Your task to perform on an android device: Show me recent news Image 0: 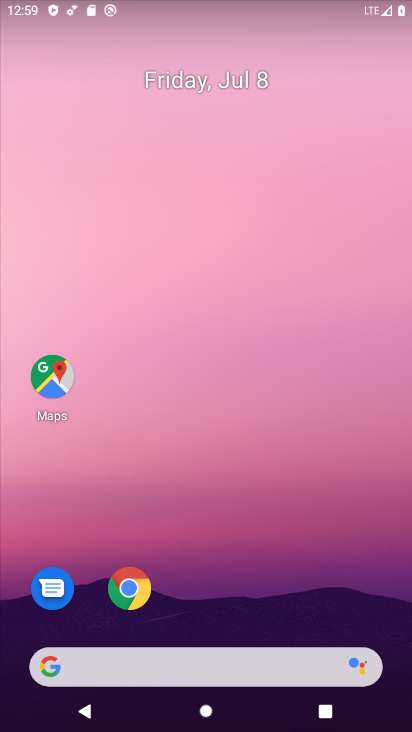
Step 0: drag from (206, 624) to (154, 0)
Your task to perform on an android device: Show me recent news Image 1: 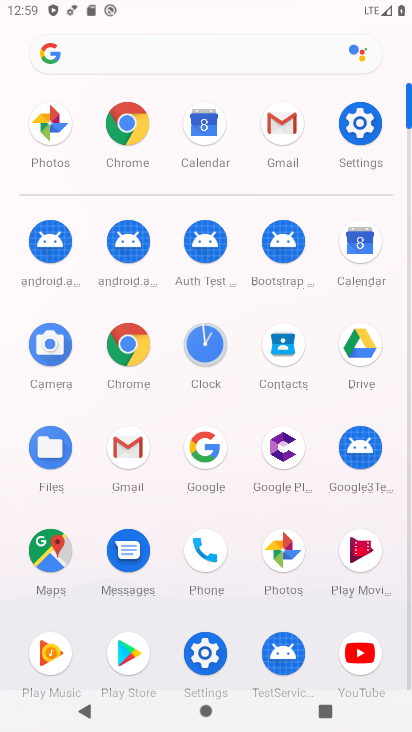
Step 1: click (204, 51)
Your task to perform on an android device: Show me recent news Image 2: 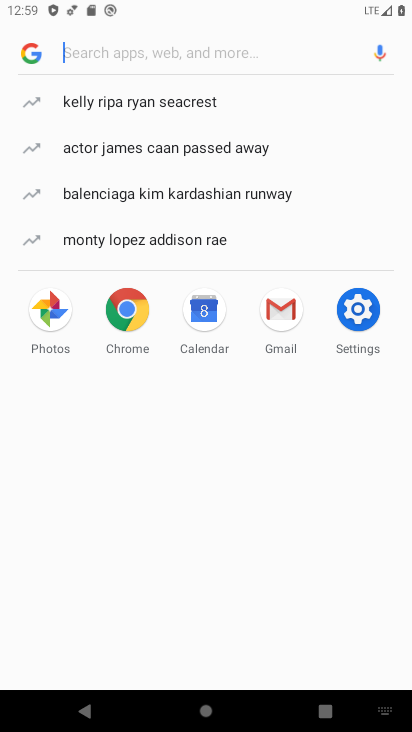
Step 2: click (199, 59)
Your task to perform on an android device: Show me recent news Image 3: 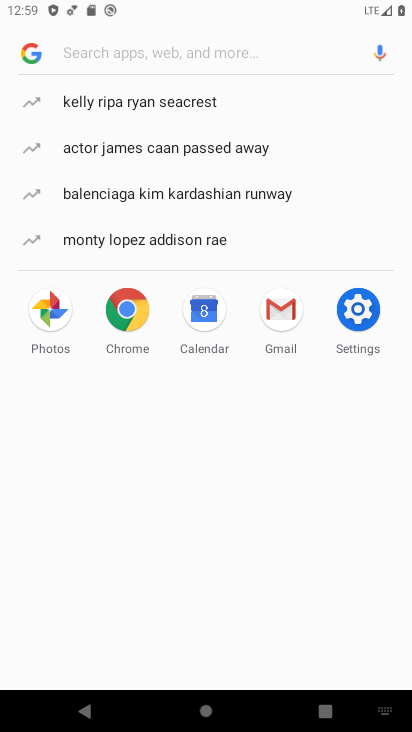
Step 3: type "recent news"
Your task to perform on an android device: Show me recent news Image 4: 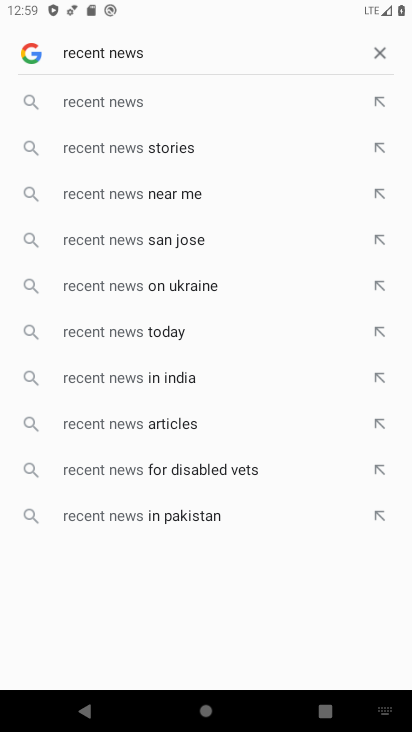
Step 4: click (129, 101)
Your task to perform on an android device: Show me recent news Image 5: 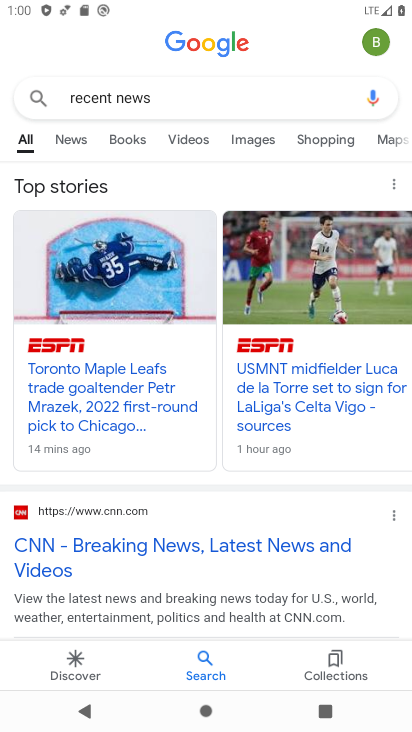
Step 5: task complete